Your task to perform on an android device: turn on javascript in the chrome app Image 0: 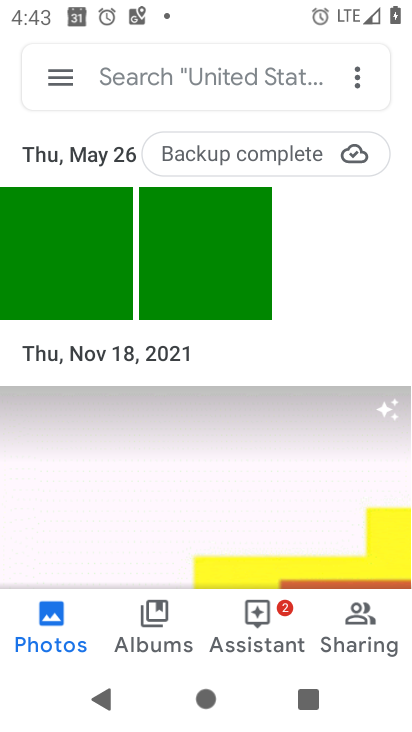
Step 0: press back button
Your task to perform on an android device: turn on javascript in the chrome app Image 1: 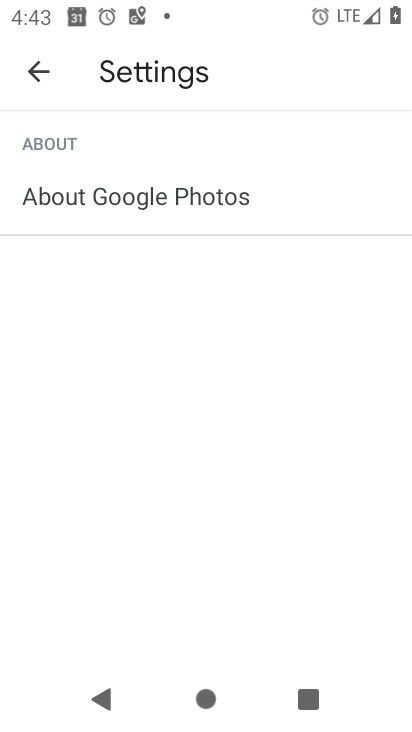
Step 1: press home button
Your task to perform on an android device: turn on javascript in the chrome app Image 2: 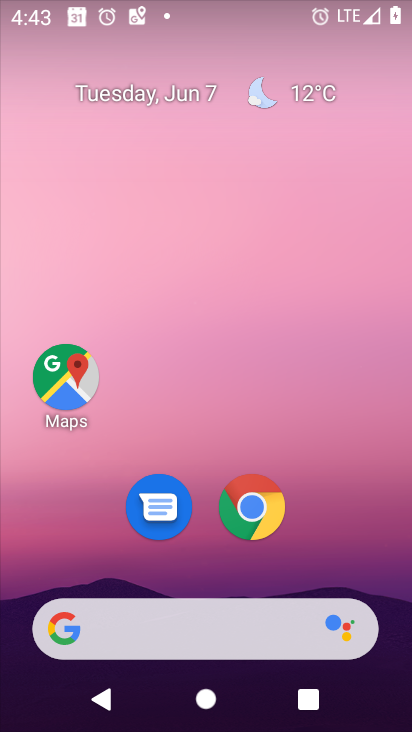
Step 2: drag from (337, 454) to (323, 48)
Your task to perform on an android device: turn on javascript in the chrome app Image 3: 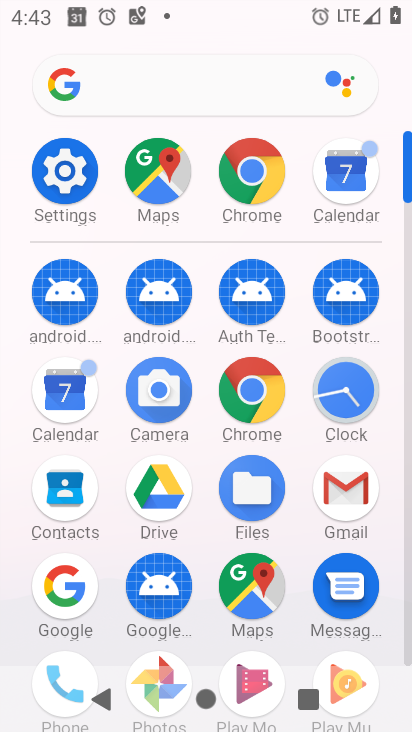
Step 3: click (252, 384)
Your task to perform on an android device: turn on javascript in the chrome app Image 4: 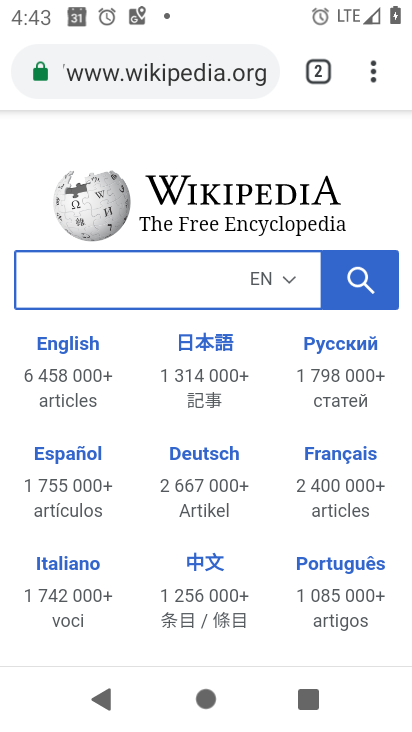
Step 4: drag from (371, 72) to (138, 500)
Your task to perform on an android device: turn on javascript in the chrome app Image 5: 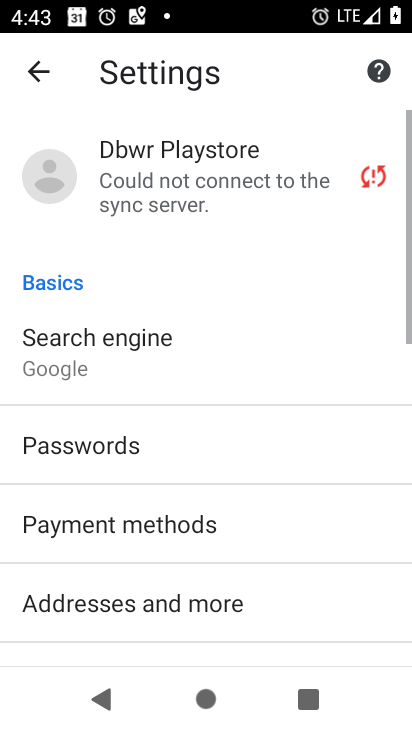
Step 5: drag from (260, 548) to (297, 199)
Your task to perform on an android device: turn on javascript in the chrome app Image 6: 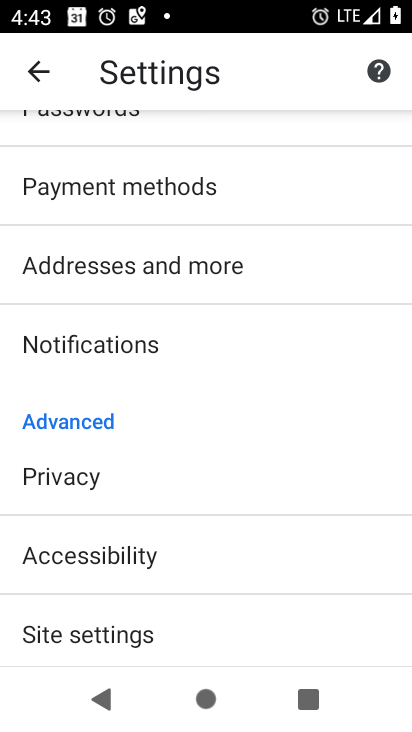
Step 6: drag from (216, 577) to (234, 201)
Your task to perform on an android device: turn on javascript in the chrome app Image 7: 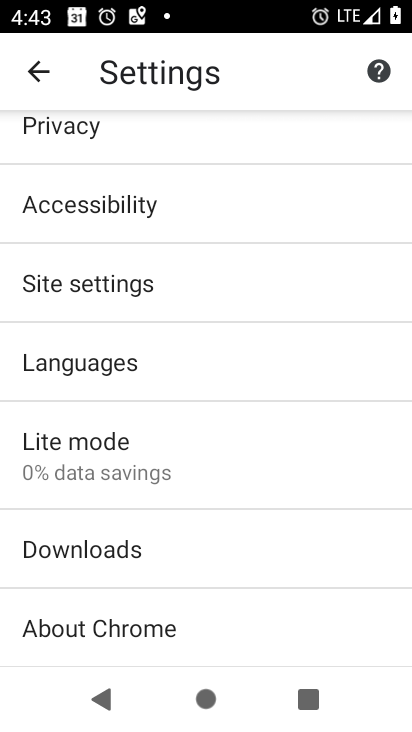
Step 7: drag from (184, 547) to (235, 212)
Your task to perform on an android device: turn on javascript in the chrome app Image 8: 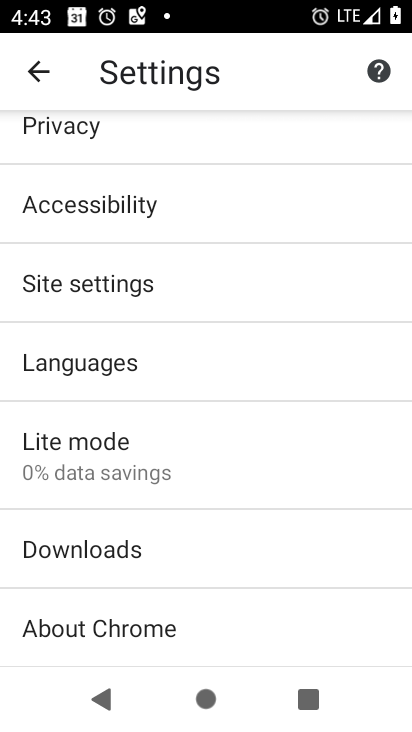
Step 8: click (140, 275)
Your task to perform on an android device: turn on javascript in the chrome app Image 9: 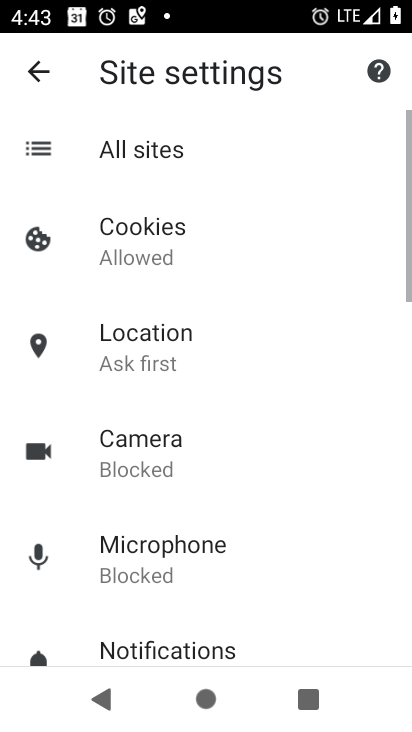
Step 9: drag from (250, 562) to (281, 198)
Your task to perform on an android device: turn on javascript in the chrome app Image 10: 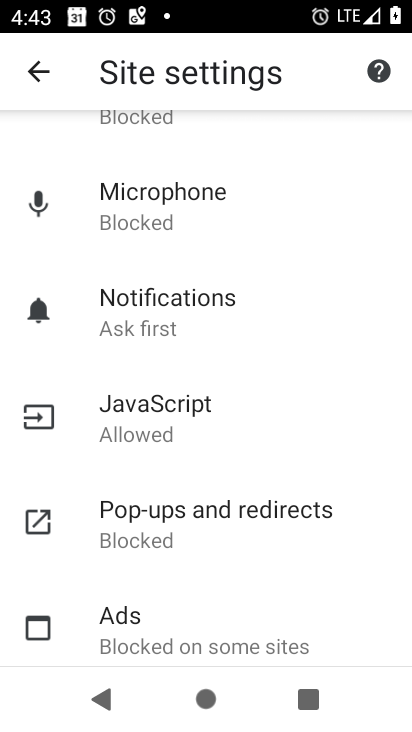
Step 10: click (166, 419)
Your task to perform on an android device: turn on javascript in the chrome app Image 11: 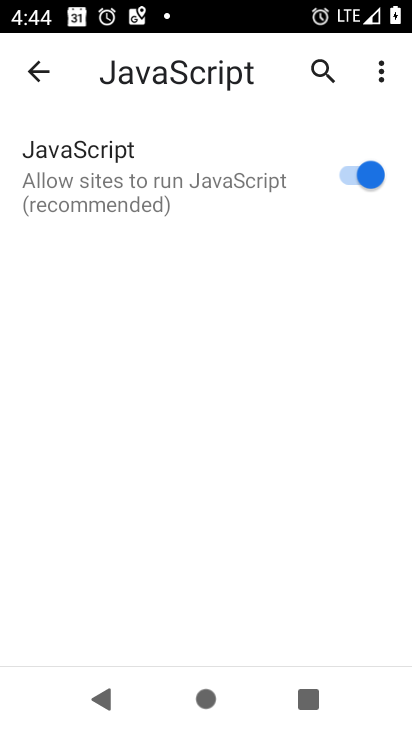
Step 11: task complete